Your task to perform on an android device: read, delete, or share a saved page in the chrome app Image 0: 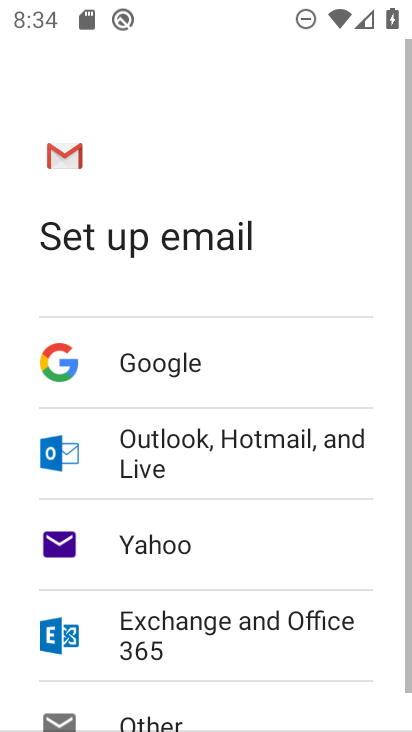
Step 0: press back button
Your task to perform on an android device: read, delete, or share a saved page in the chrome app Image 1: 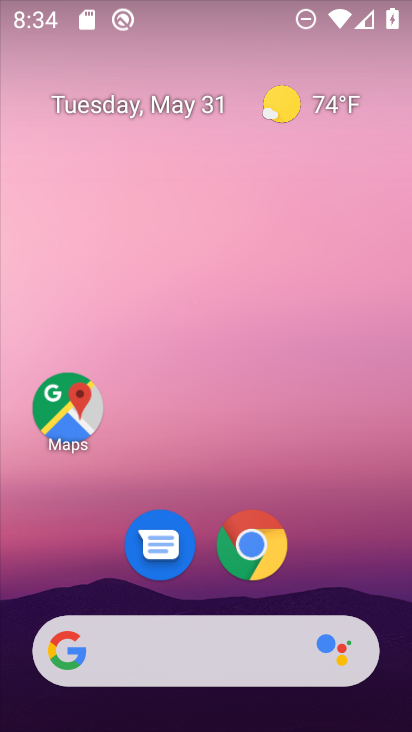
Step 1: drag from (304, 577) to (247, 17)
Your task to perform on an android device: read, delete, or share a saved page in the chrome app Image 2: 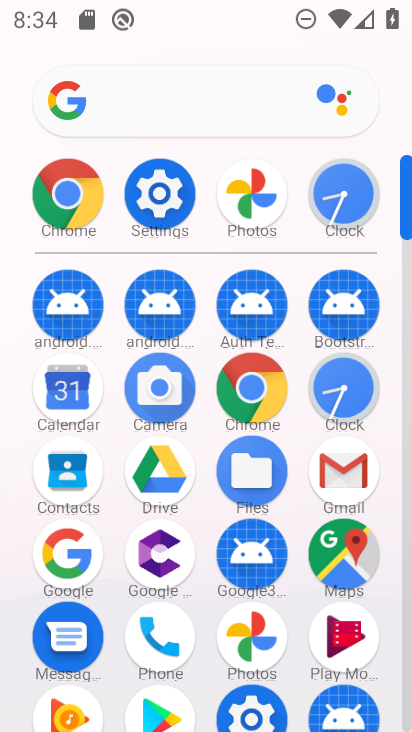
Step 2: click (246, 378)
Your task to perform on an android device: read, delete, or share a saved page in the chrome app Image 3: 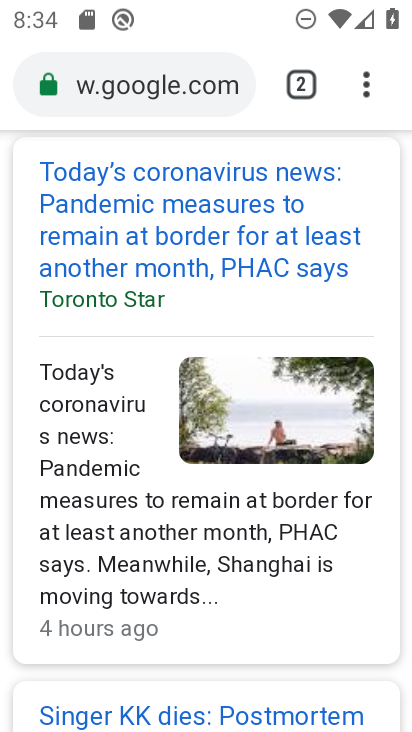
Step 3: task complete